Your task to perform on an android device: allow notifications from all sites in the chrome app Image 0: 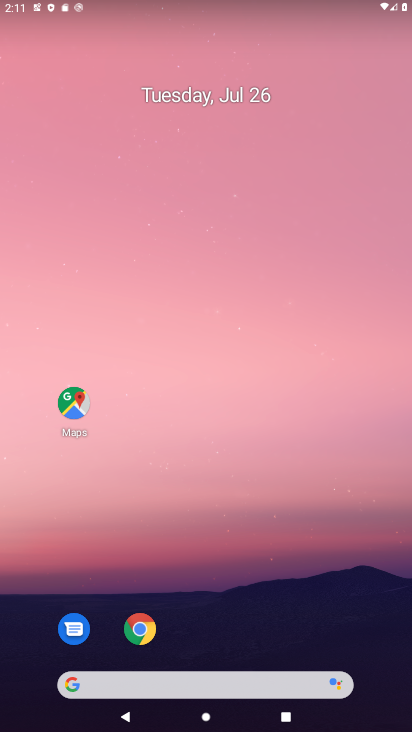
Step 0: click (129, 637)
Your task to perform on an android device: allow notifications from all sites in the chrome app Image 1: 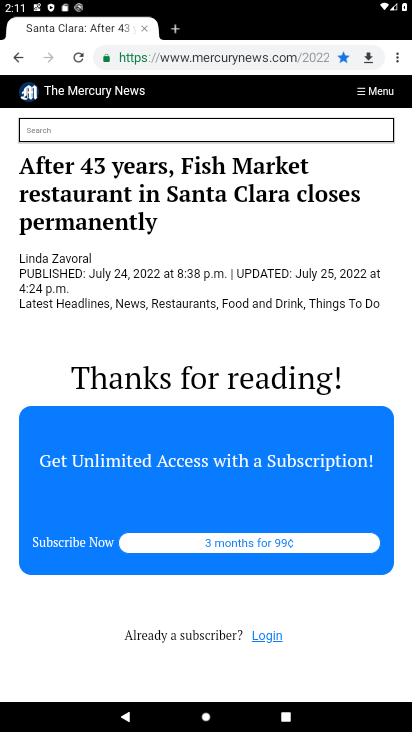
Step 1: drag from (399, 63) to (314, 422)
Your task to perform on an android device: allow notifications from all sites in the chrome app Image 2: 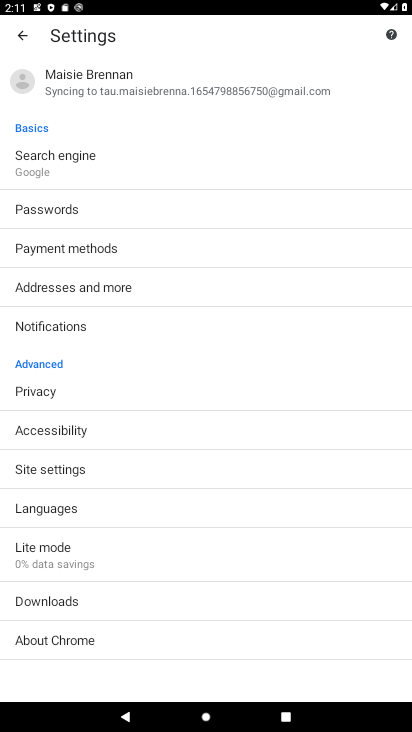
Step 2: click (53, 477)
Your task to perform on an android device: allow notifications from all sites in the chrome app Image 3: 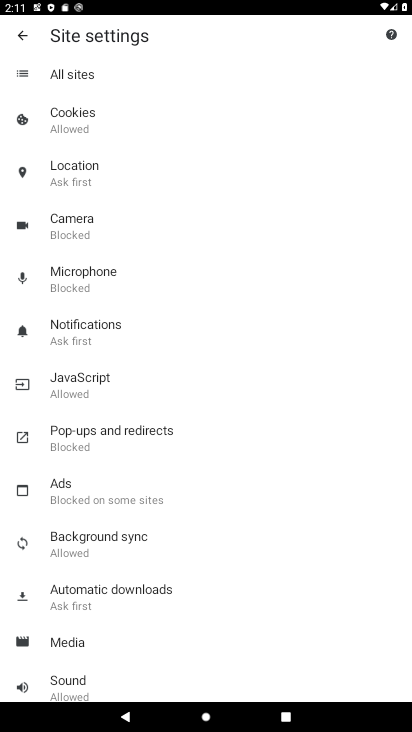
Step 3: click (109, 85)
Your task to perform on an android device: allow notifications from all sites in the chrome app Image 4: 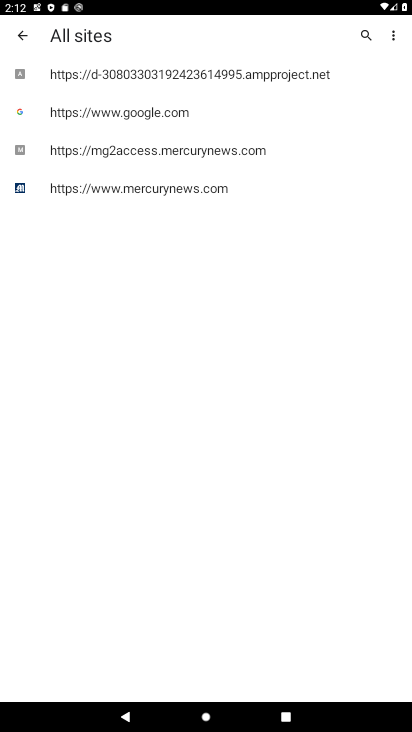
Step 4: click (167, 113)
Your task to perform on an android device: allow notifications from all sites in the chrome app Image 5: 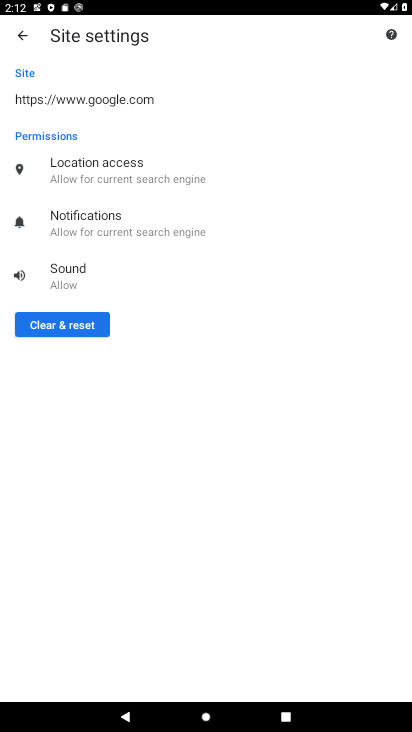
Step 5: click (145, 241)
Your task to perform on an android device: allow notifications from all sites in the chrome app Image 6: 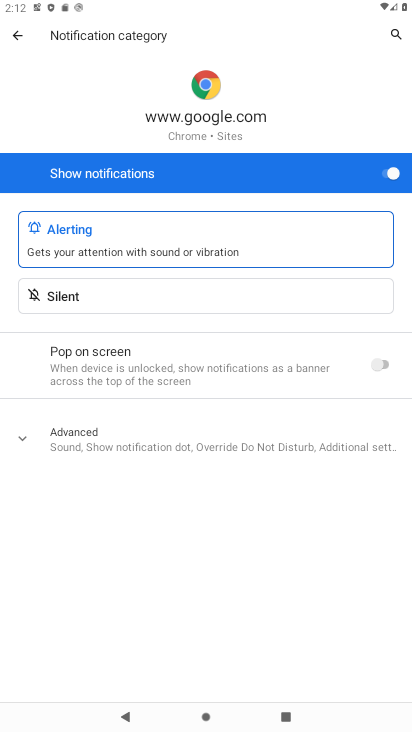
Step 6: task complete